Your task to perform on an android device: Open accessibility settings Image 0: 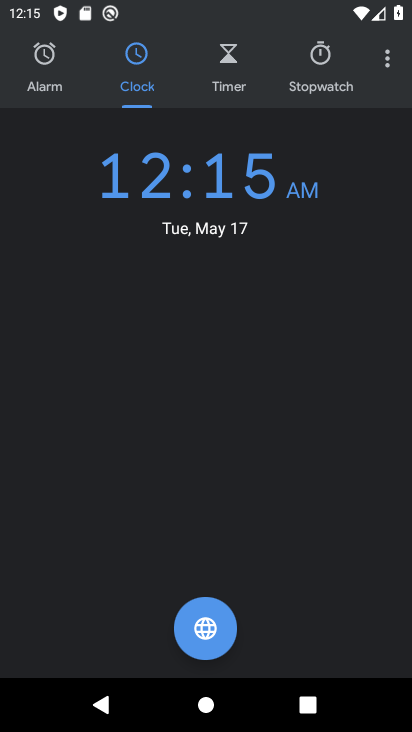
Step 0: press home button
Your task to perform on an android device: Open accessibility settings Image 1: 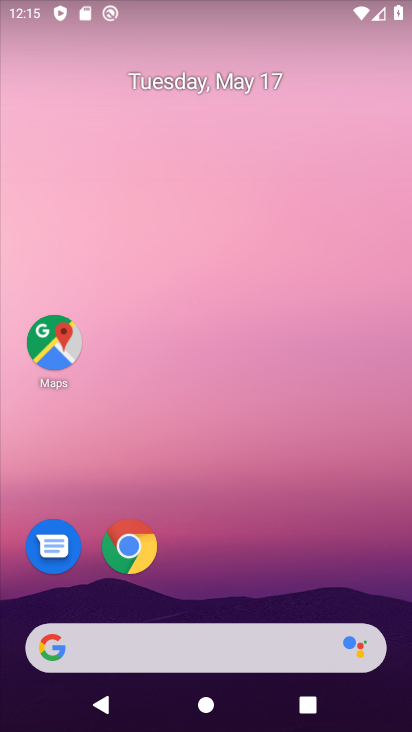
Step 1: drag from (218, 592) to (240, 144)
Your task to perform on an android device: Open accessibility settings Image 2: 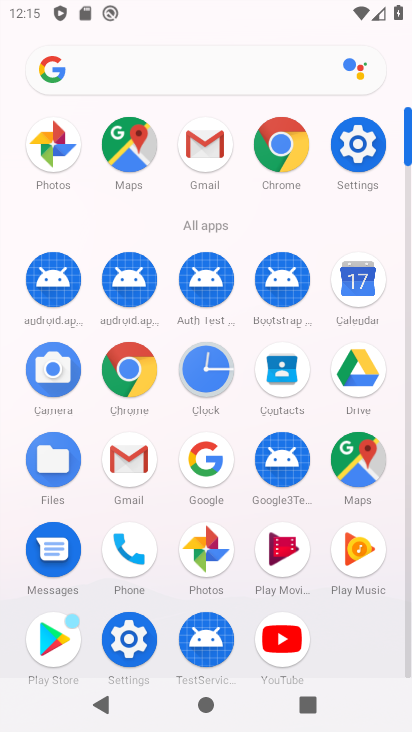
Step 2: click (360, 154)
Your task to perform on an android device: Open accessibility settings Image 3: 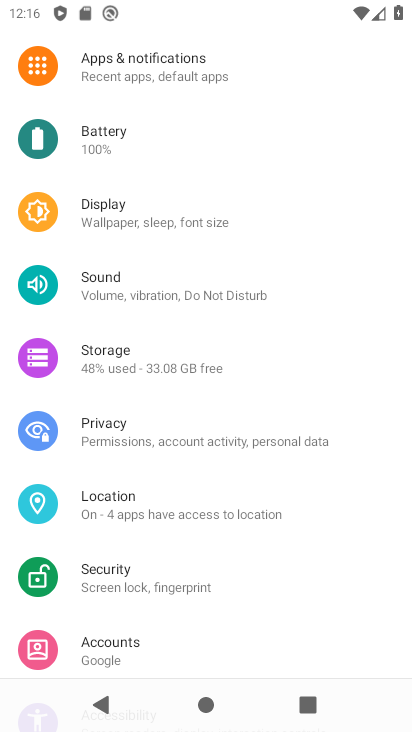
Step 3: drag from (206, 616) to (219, 358)
Your task to perform on an android device: Open accessibility settings Image 4: 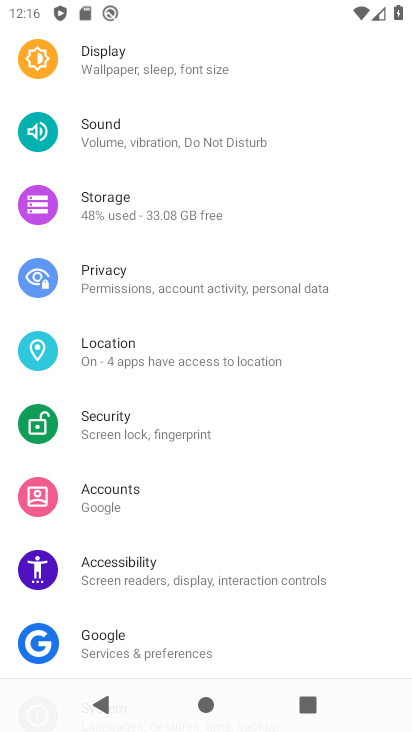
Step 4: click (156, 572)
Your task to perform on an android device: Open accessibility settings Image 5: 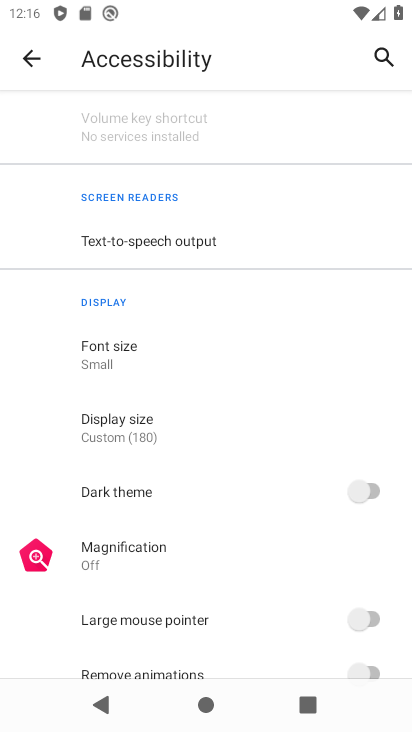
Step 5: task complete